Your task to perform on an android device: open app "LinkedIn" (install if not already installed) Image 0: 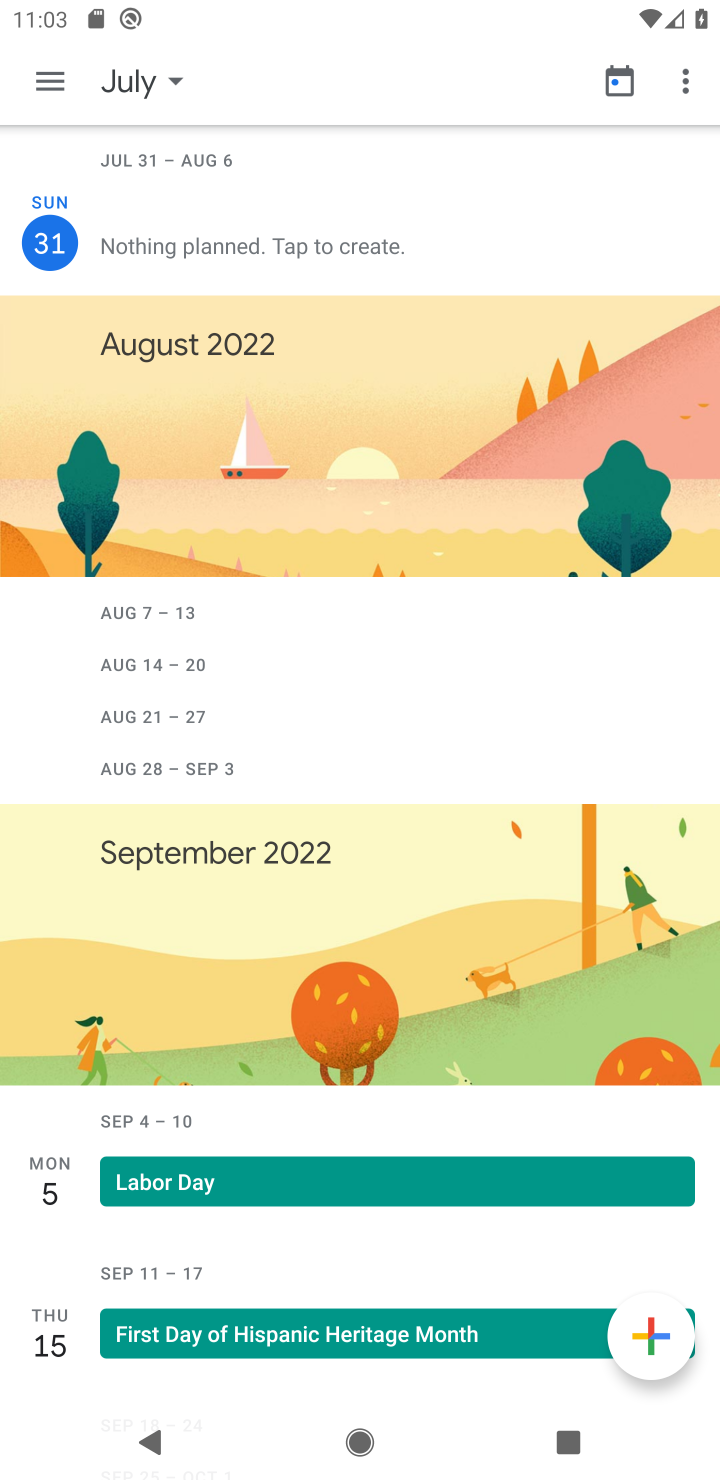
Step 0: press home button
Your task to perform on an android device: open app "LinkedIn" (install if not already installed) Image 1: 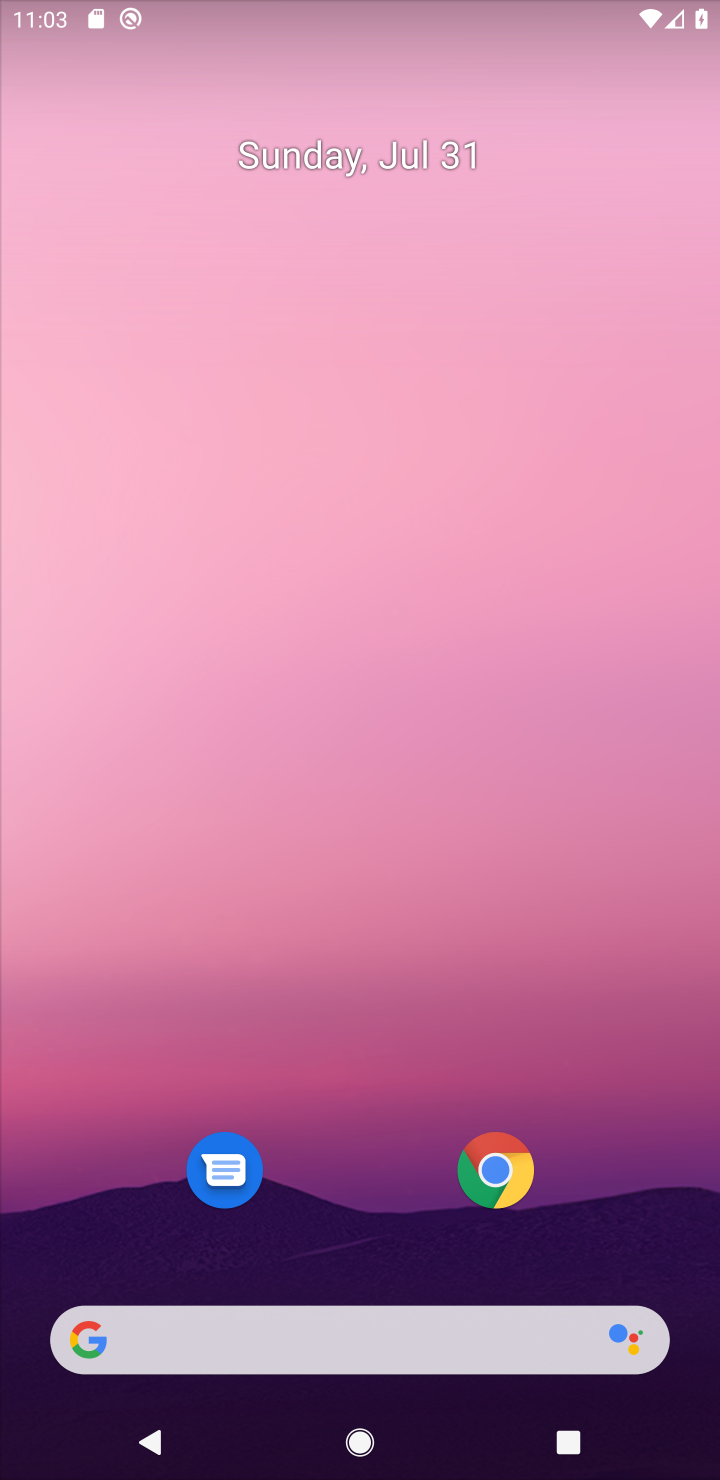
Step 1: drag from (575, 1036) to (398, 190)
Your task to perform on an android device: open app "LinkedIn" (install if not already installed) Image 2: 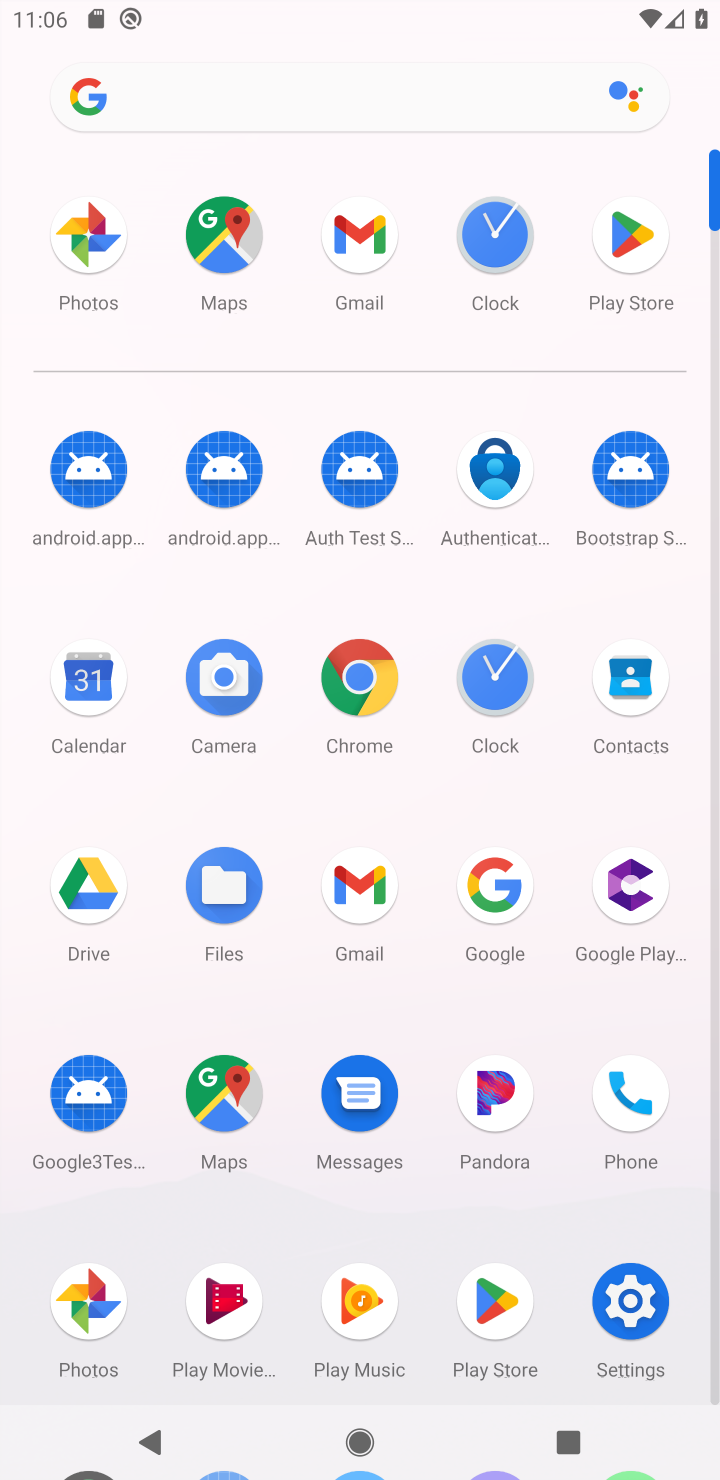
Step 2: click (622, 244)
Your task to perform on an android device: open app "LinkedIn" (install if not already installed) Image 3: 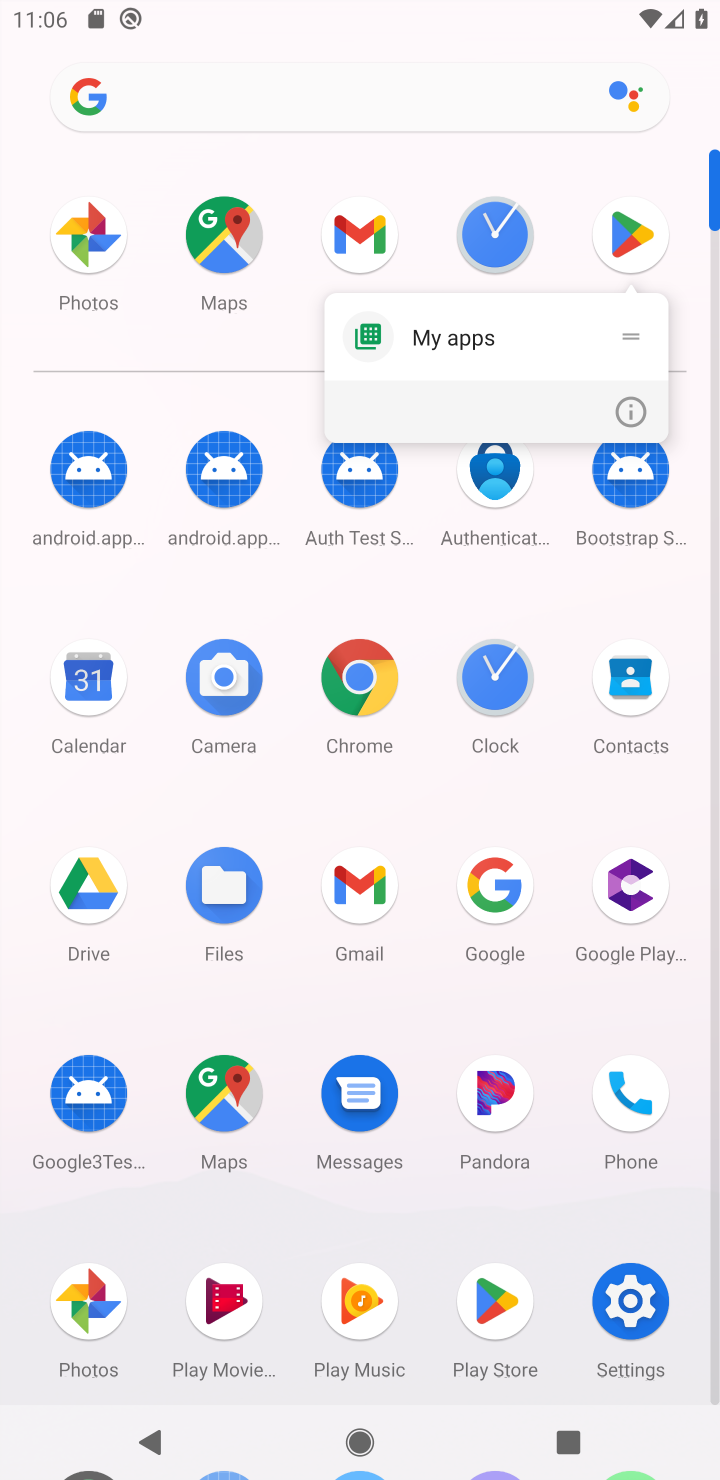
Step 3: click (628, 244)
Your task to perform on an android device: open app "LinkedIn" (install if not already installed) Image 4: 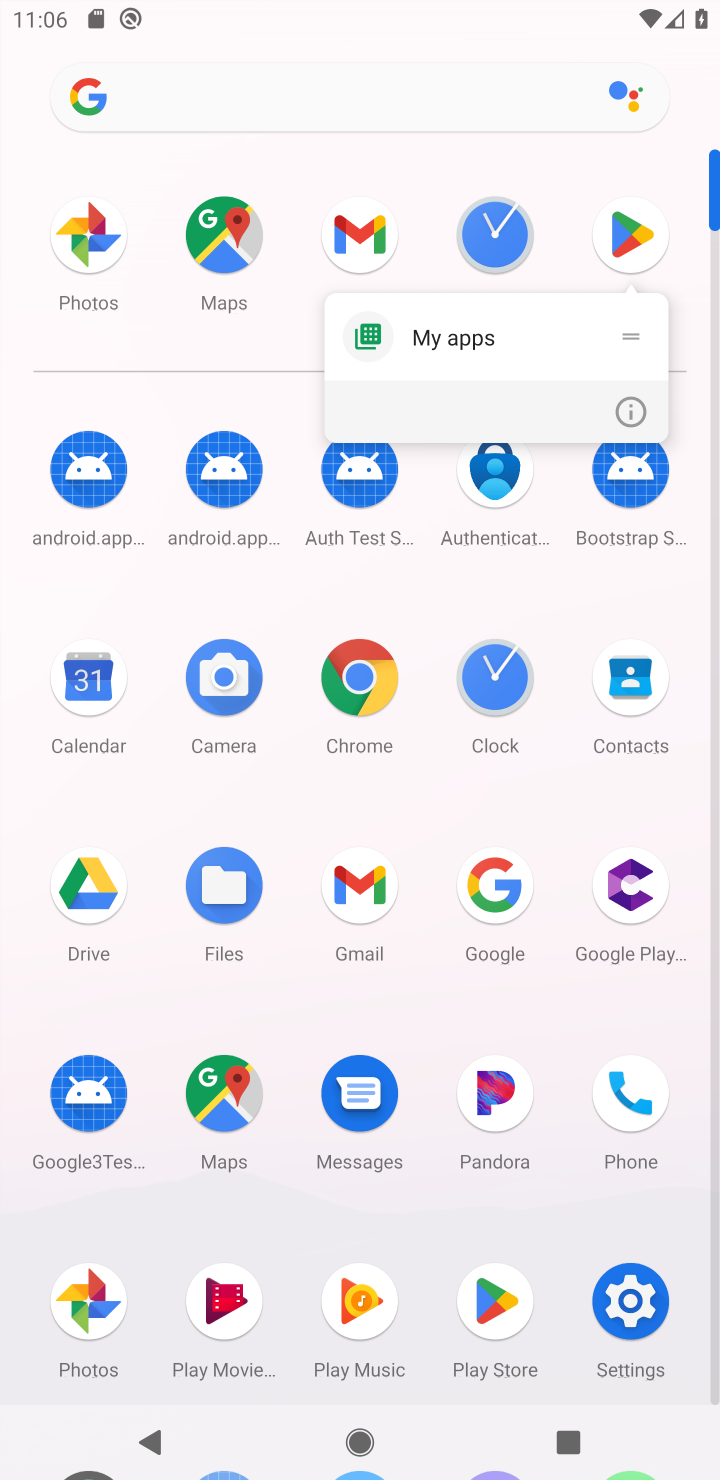
Step 4: click (638, 233)
Your task to perform on an android device: open app "LinkedIn" (install if not already installed) Image 5: 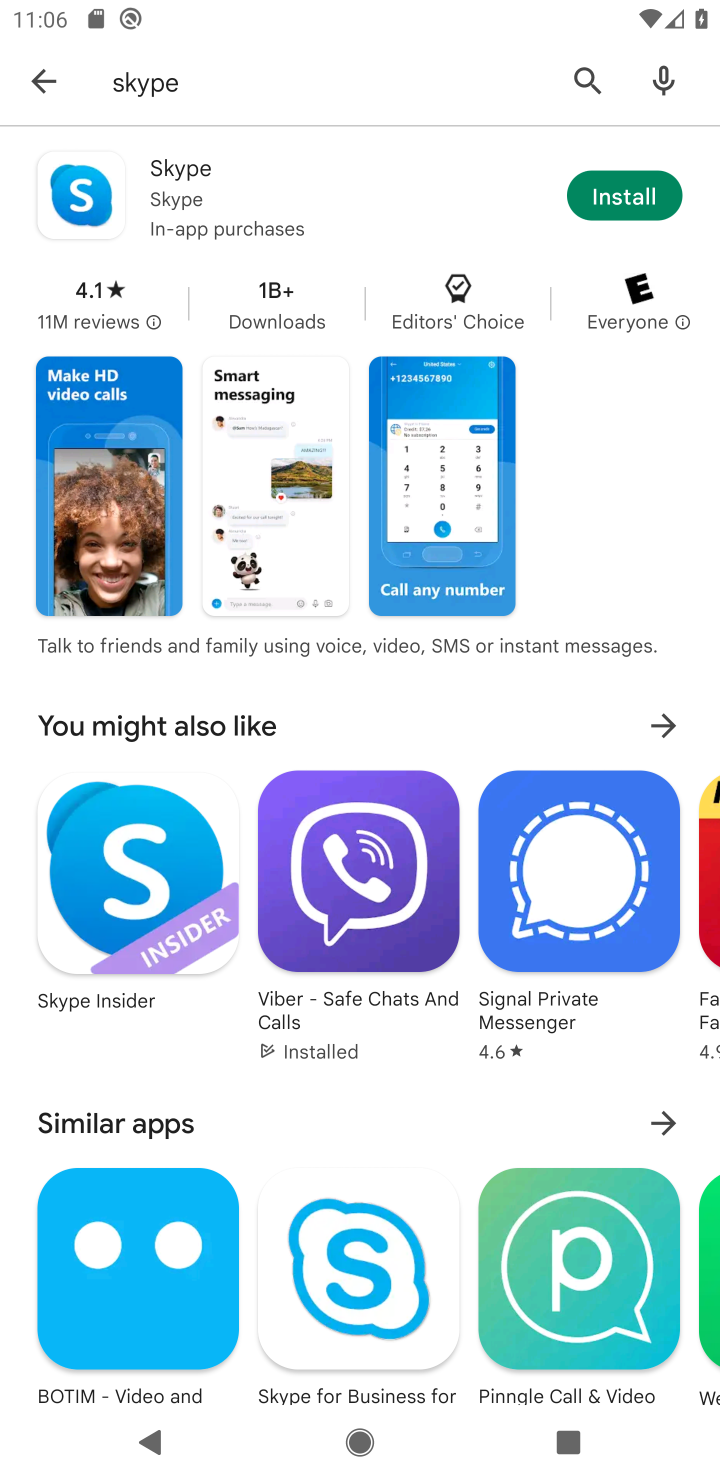
Step 5: press back button
Your task to perform on an android device: open app "LinkedIn" (install if not already installed) Image 6: 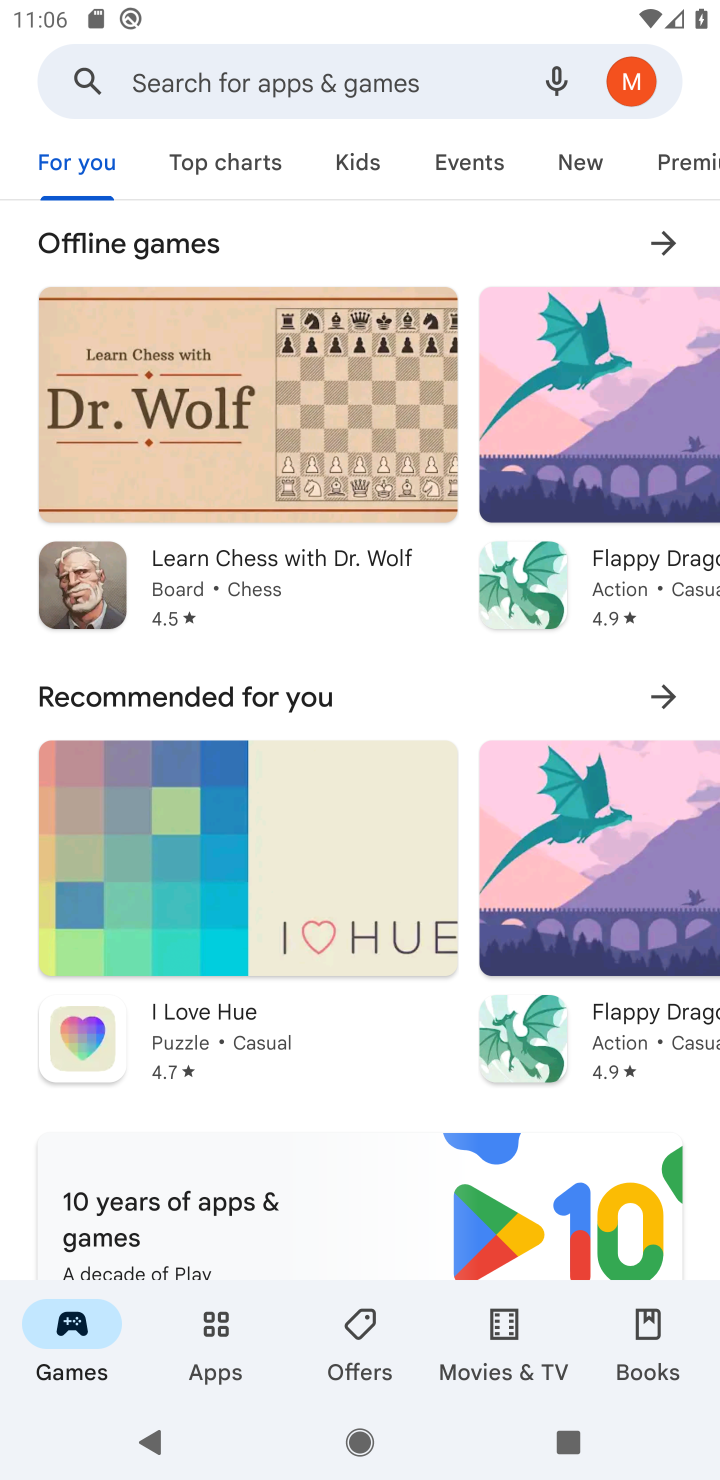
Step 6: click (313, 62)
Your task to perform on an android device: open app "LinkedIn" (install if not already installed) Image 7: 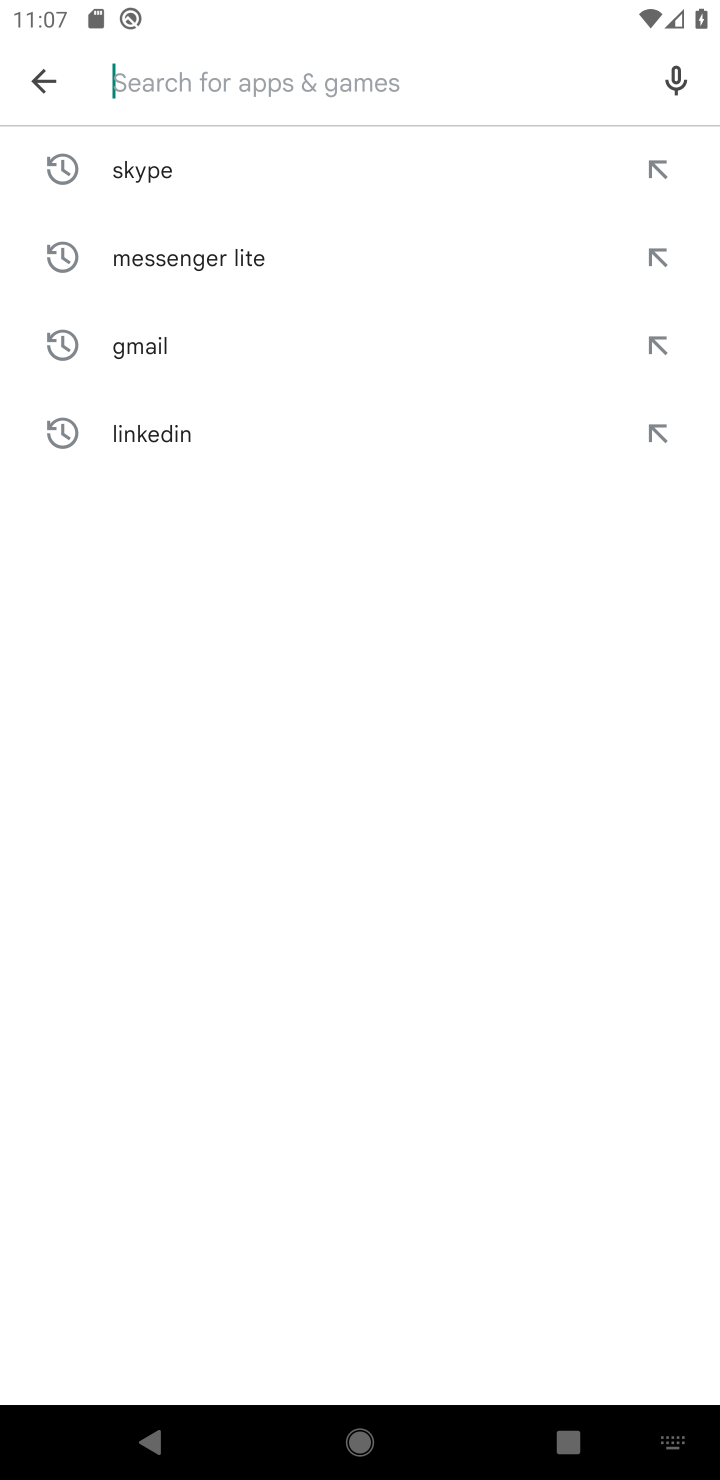
Step 7: type "LinkedIn"
Your task to perform on an android device: open app "LinkedIn" (install if not already installed) Image 8: 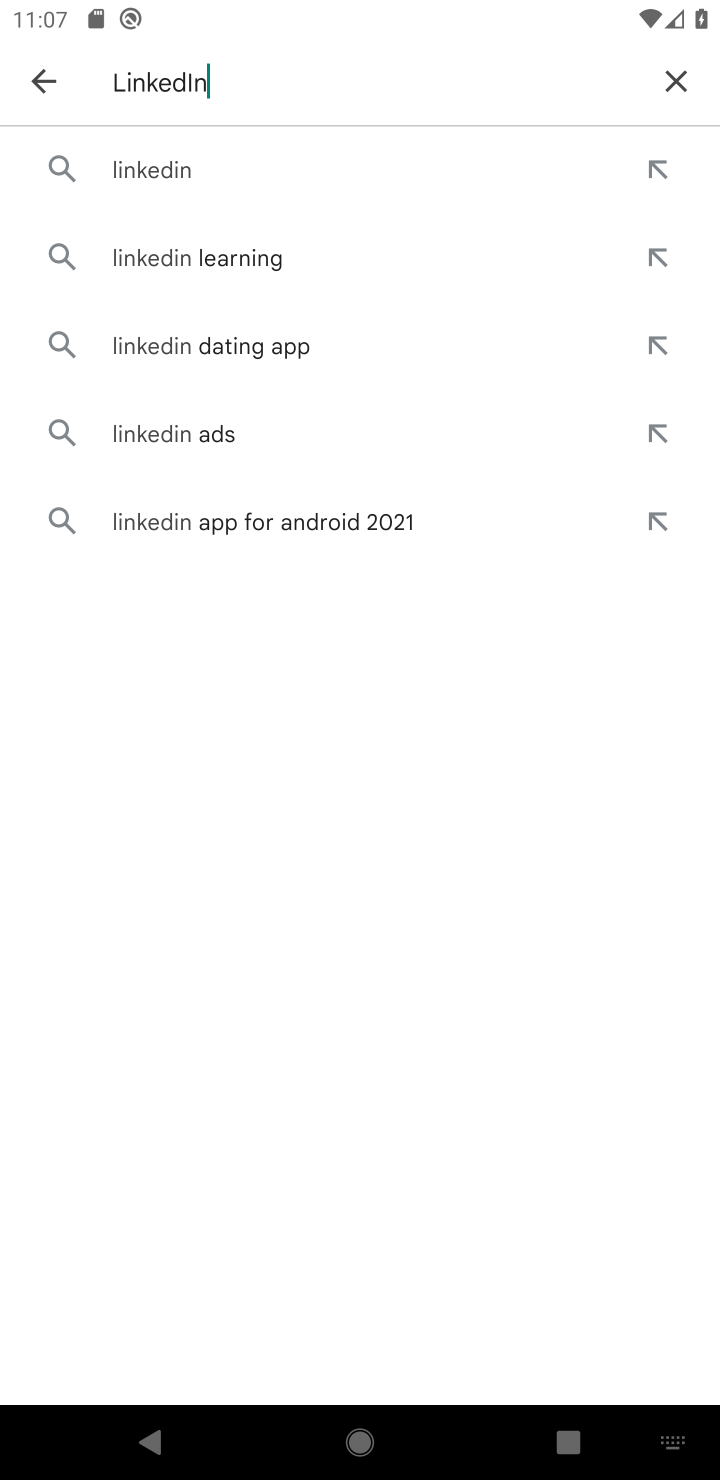
Step 8: click (244, 165)
Your task to perform on an android device: open app "LinkedIn" (install if not already installed) Image 9: 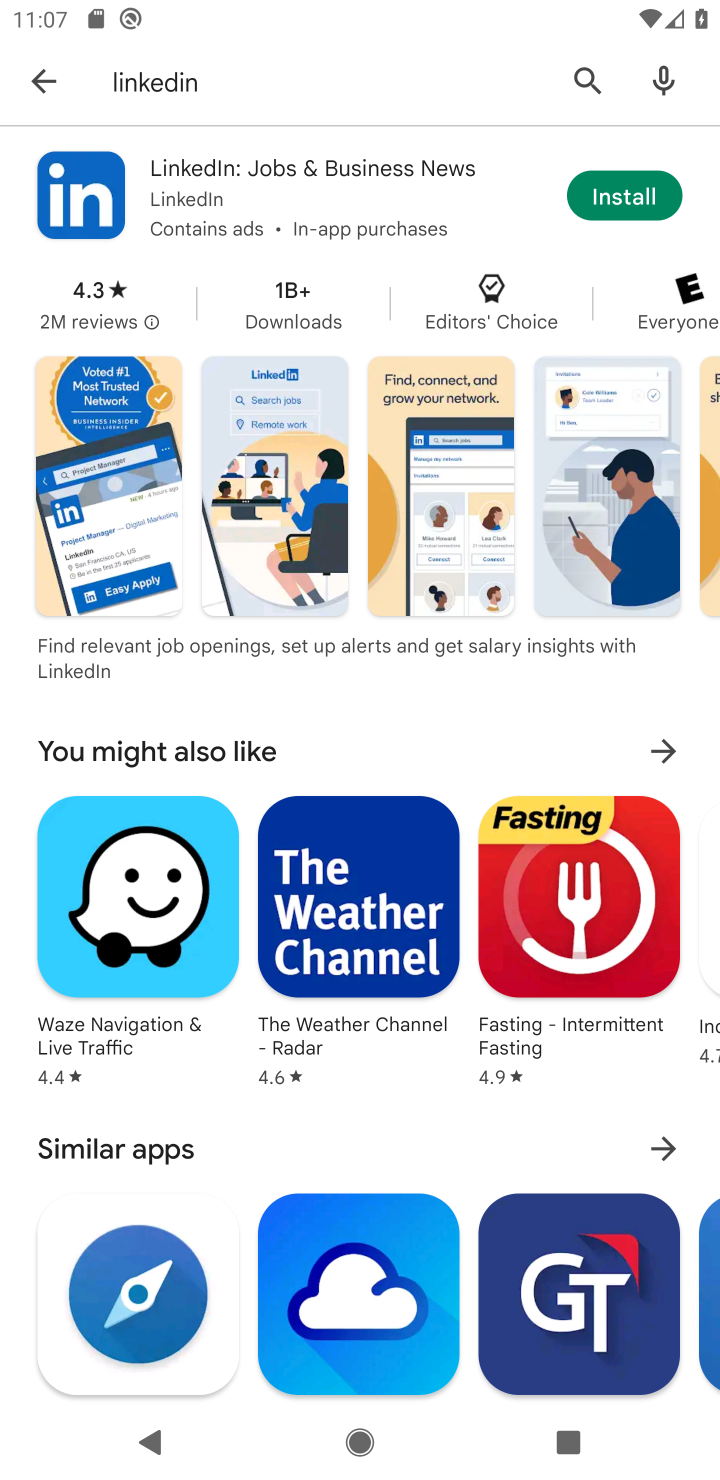
Step 9: task complete